Your task to perform on an android device: Open Yahoo.com Image 0: 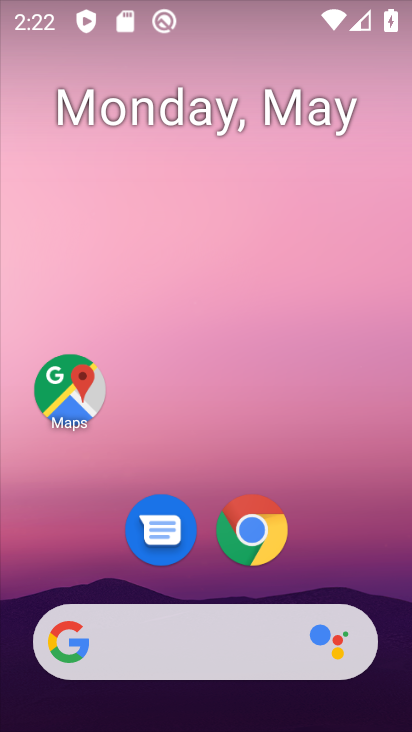
Step 0: press home button
Your task to perform on an android device: Open Yahoo.com Image 1: 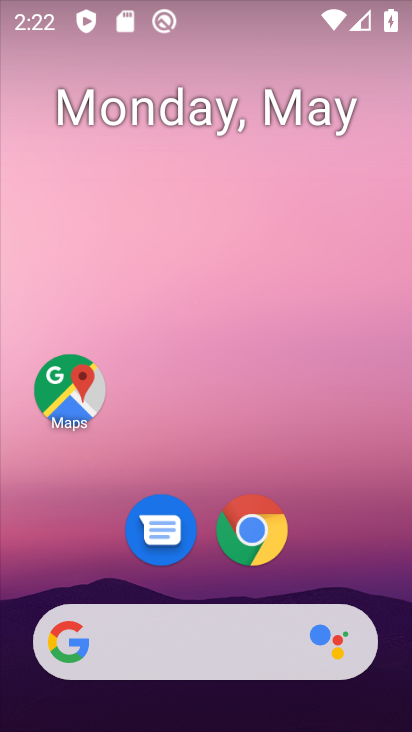
Step 1: drag from (243, 655) to (243, 105)
Your task to perform on an android device: Open Yahoo.com Image 2: 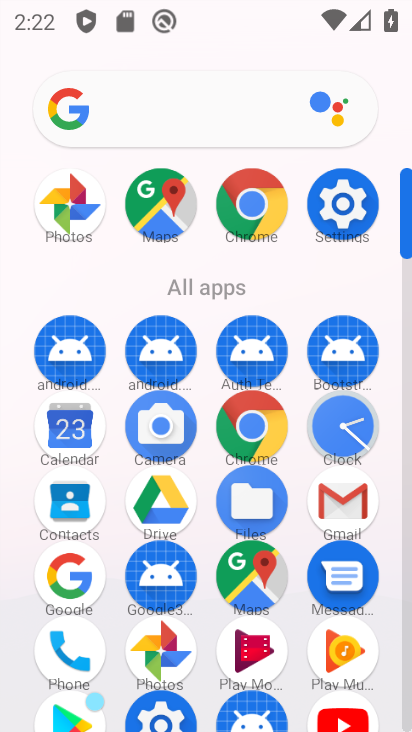
Step 2: click (236, 194)
Your task to perform on an android device: Open Yahoo.com Image 3: 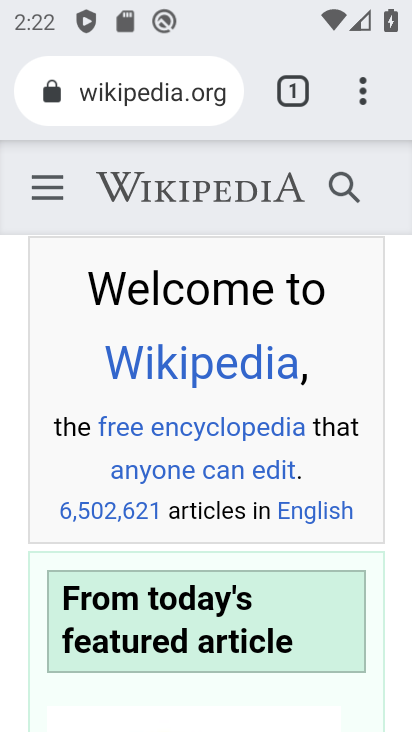
Step 3: click (294, 96)
Your task to perform on an android device: Open Yahoo.com Image 4: 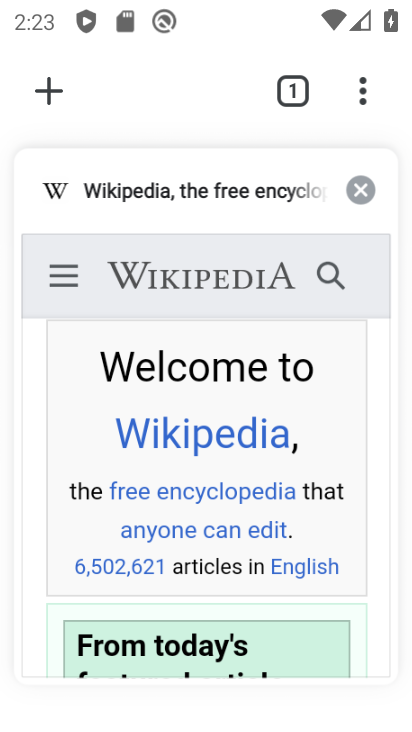
Step 4: click (48, 92)
Your task to perform on an android device: Open Yahoo.com Image 5: 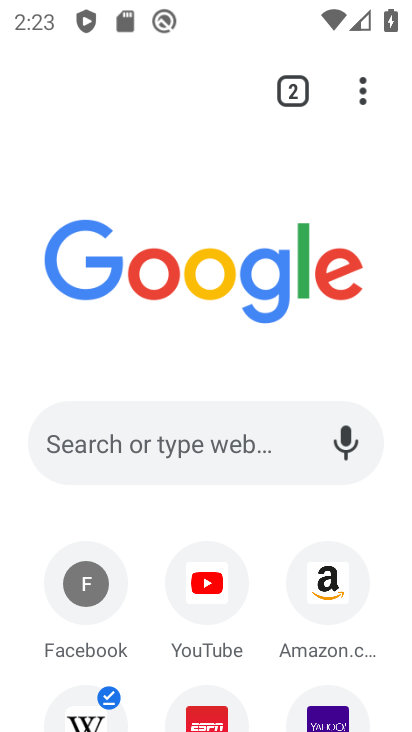
Step 5: click (318, 708)
Your task to perform on an android device: Open Yahoo.com Image 6: 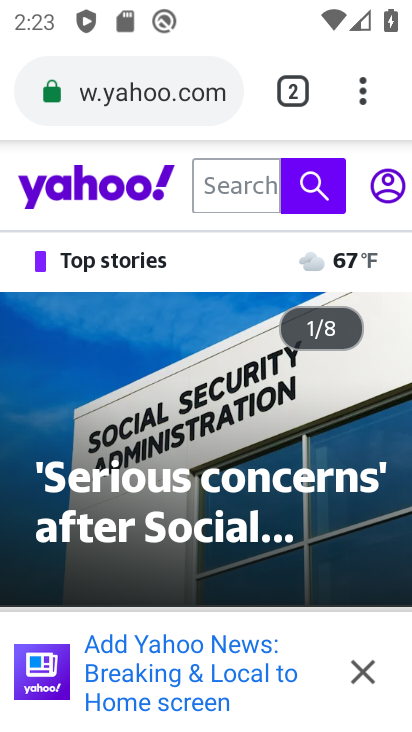
Step 6: task complete